Your task to perform on an android device: uninstall "Airtel Thanks" Image 0: 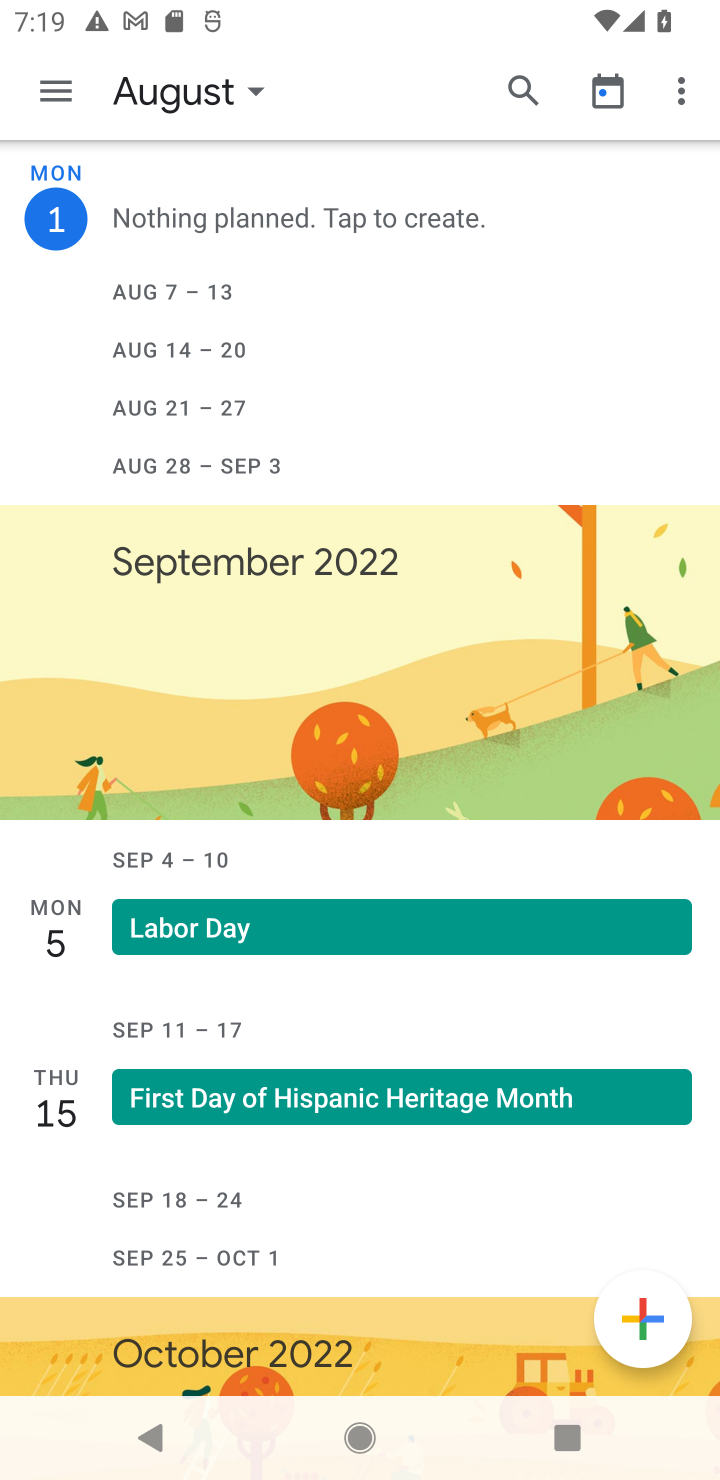
Step 0: press home button
Your task to perform on an android device: uninstall "Airtel Thanks" Image 1: 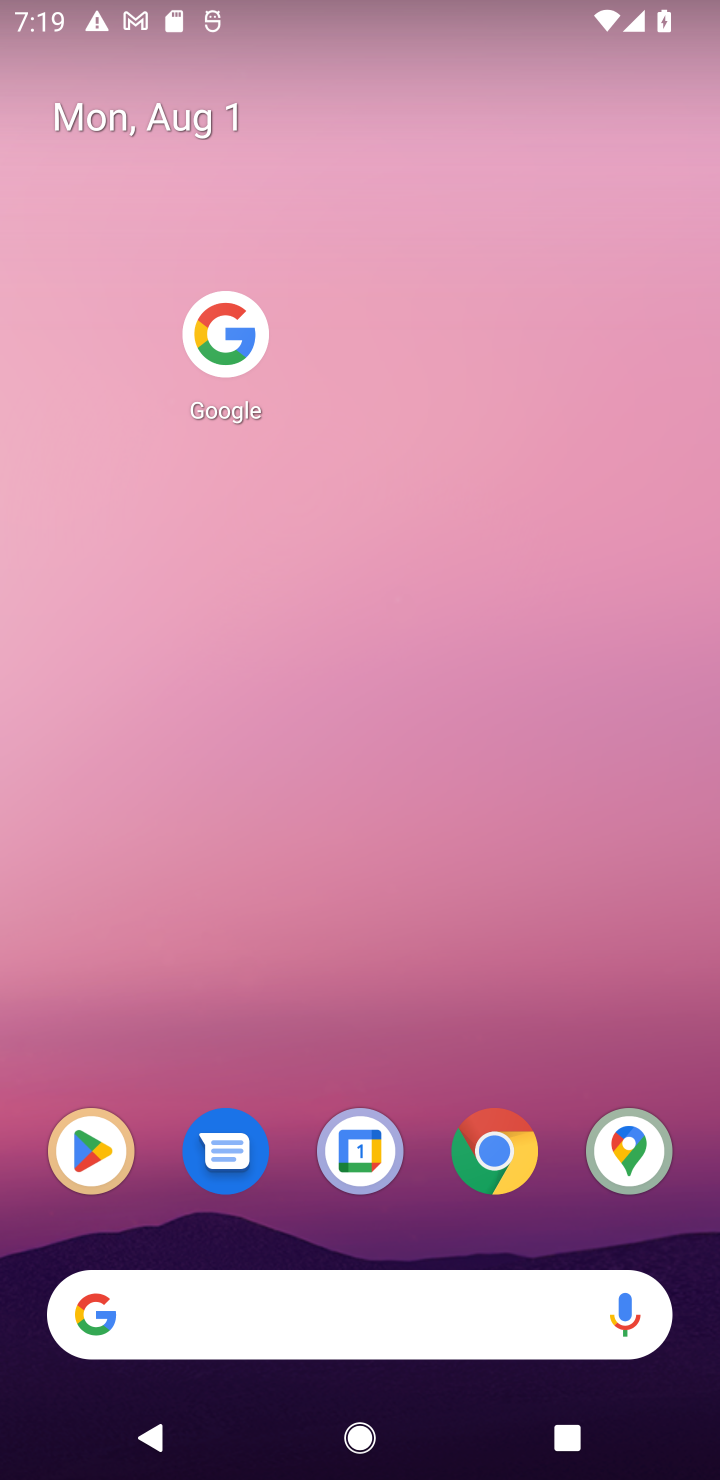
Step 1: drag from (357, 1293) to (468, 5)
Your task to perform on an android device: uninstall "Airtel Thanks" Image 2: 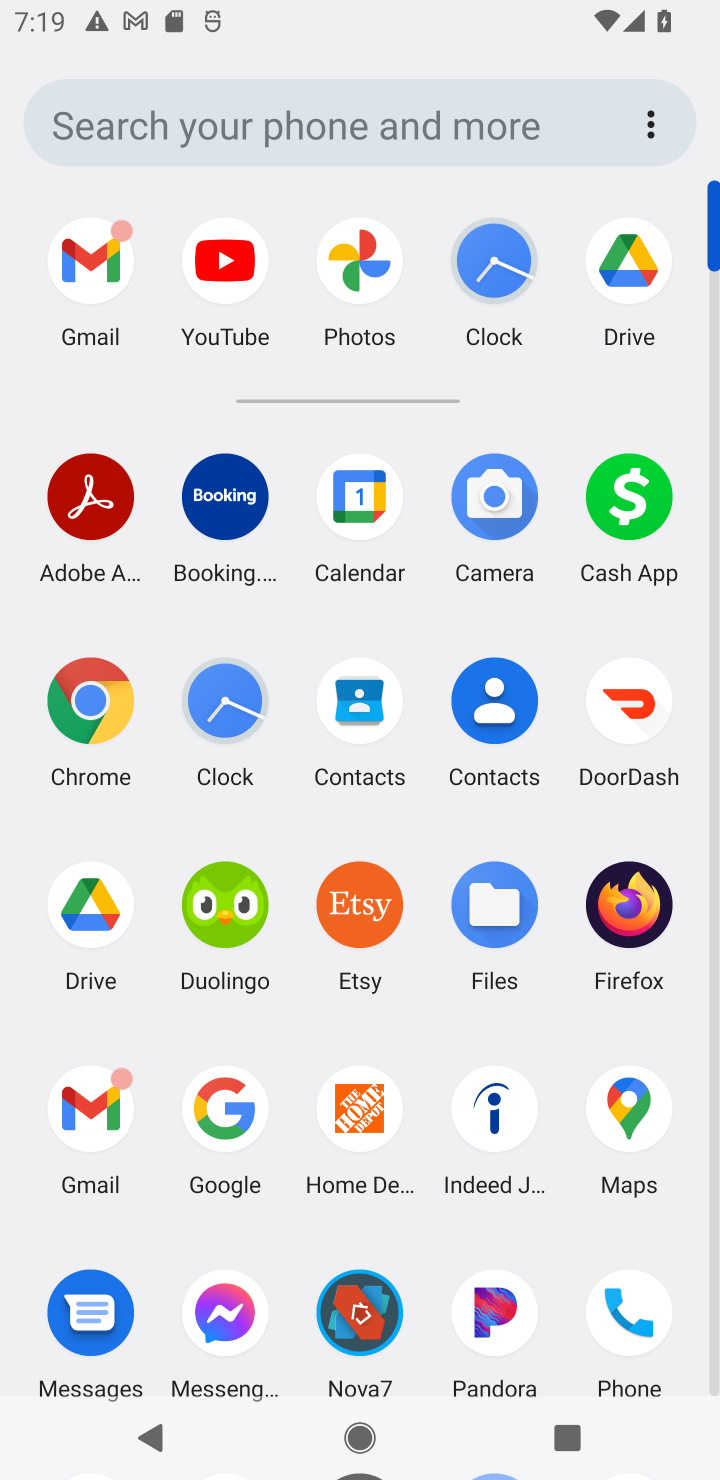
Step 2: drag from (288, 1005) to (301, 565)
Your task to perform on an android device: uninstall "Airtel Thanks" Image 3: 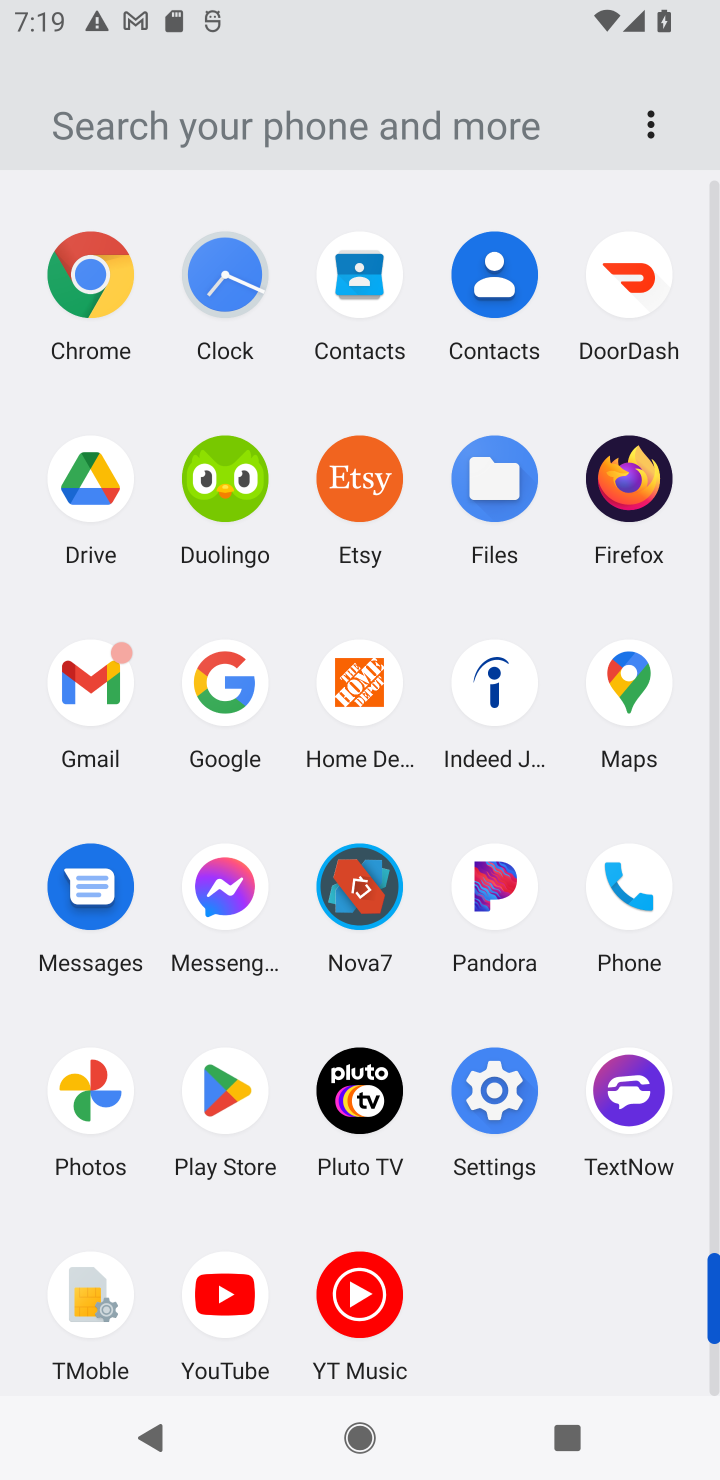
Step 3: click (252, 1099)
Your task to perform on an android device: uninstall "Airtel Thanks" Image 4: 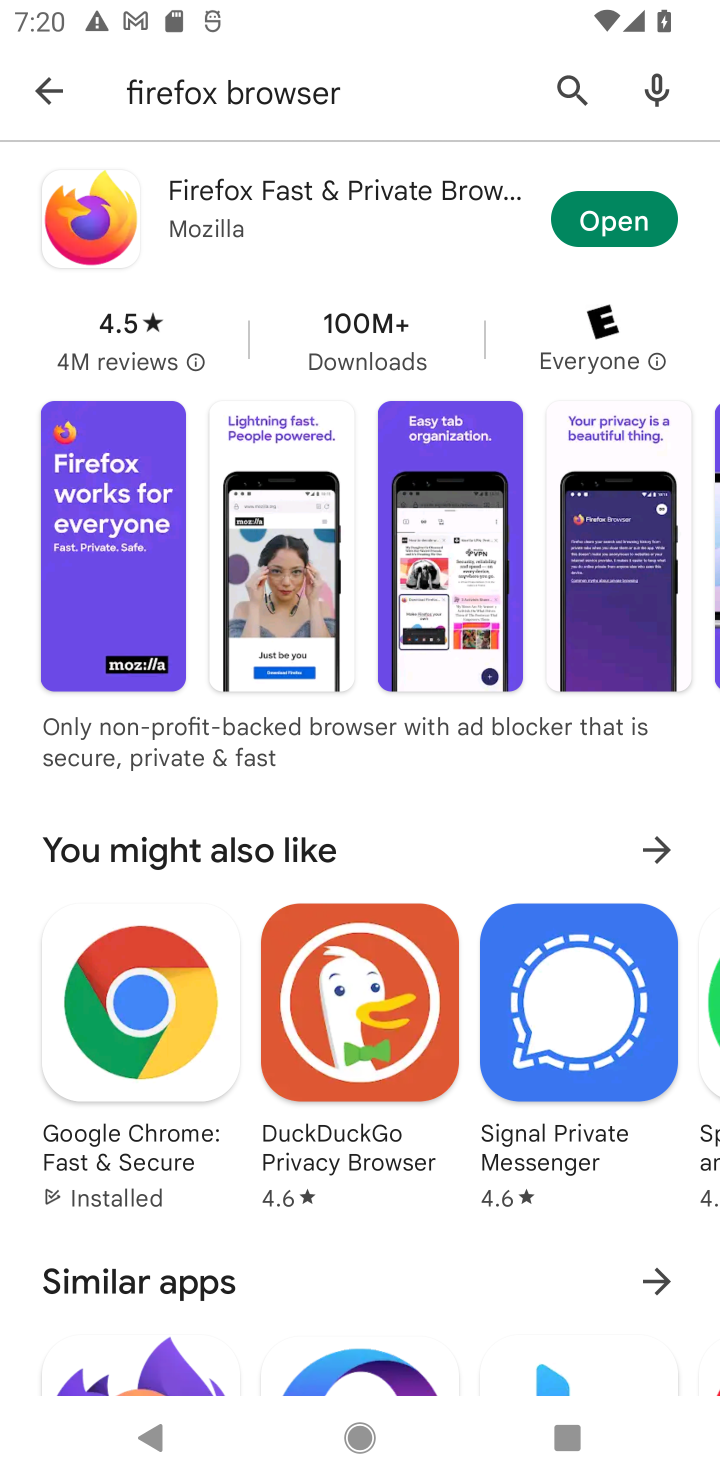
Step 4: click (563, 91)
Your task to perform on an android device: uninstall "Airtel Thanks" Image 5: 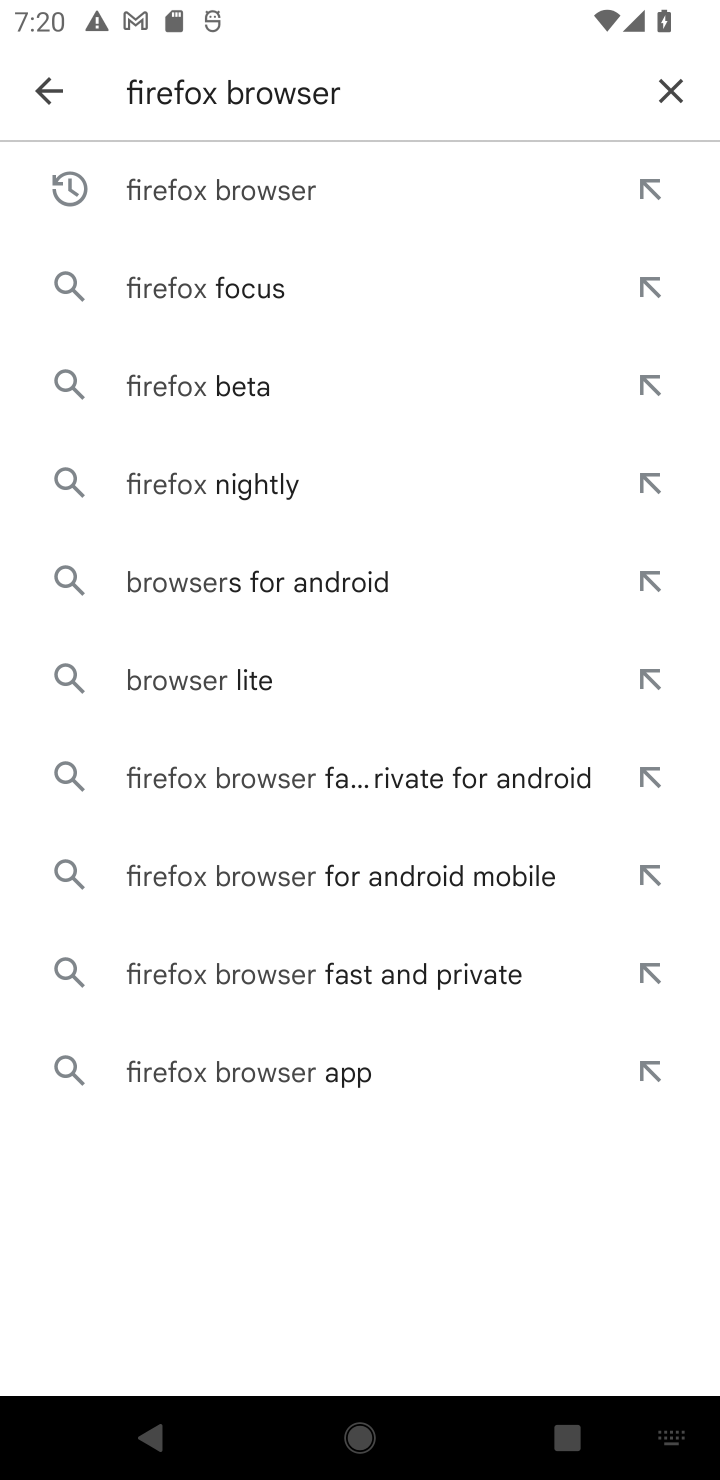
Step 5: click (691, 91)
Your task to perform on an android device: uninstall "Airtel Thanks" Image 6: 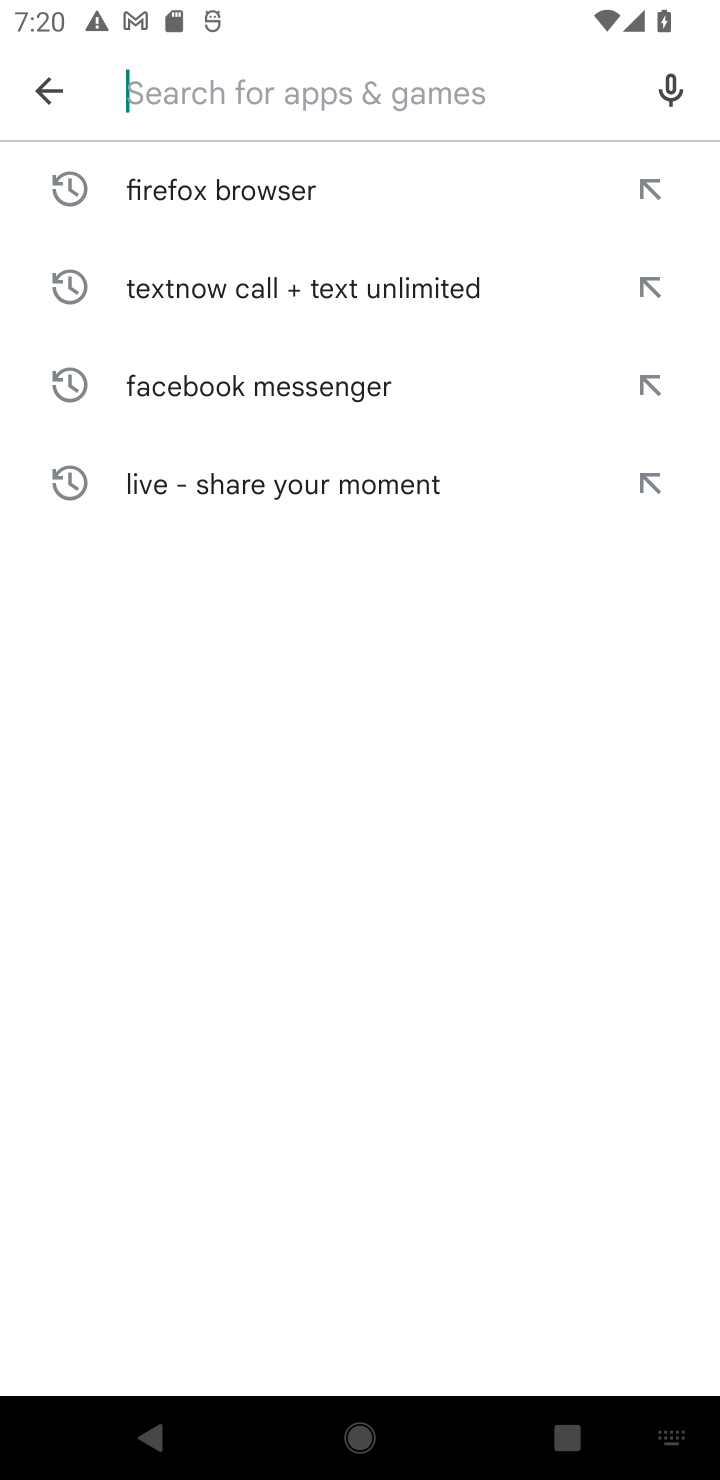
Step 6: type "airtel thanks"
Your task to perform on an android device: uninstall "Airtel Thanks" Image 7: 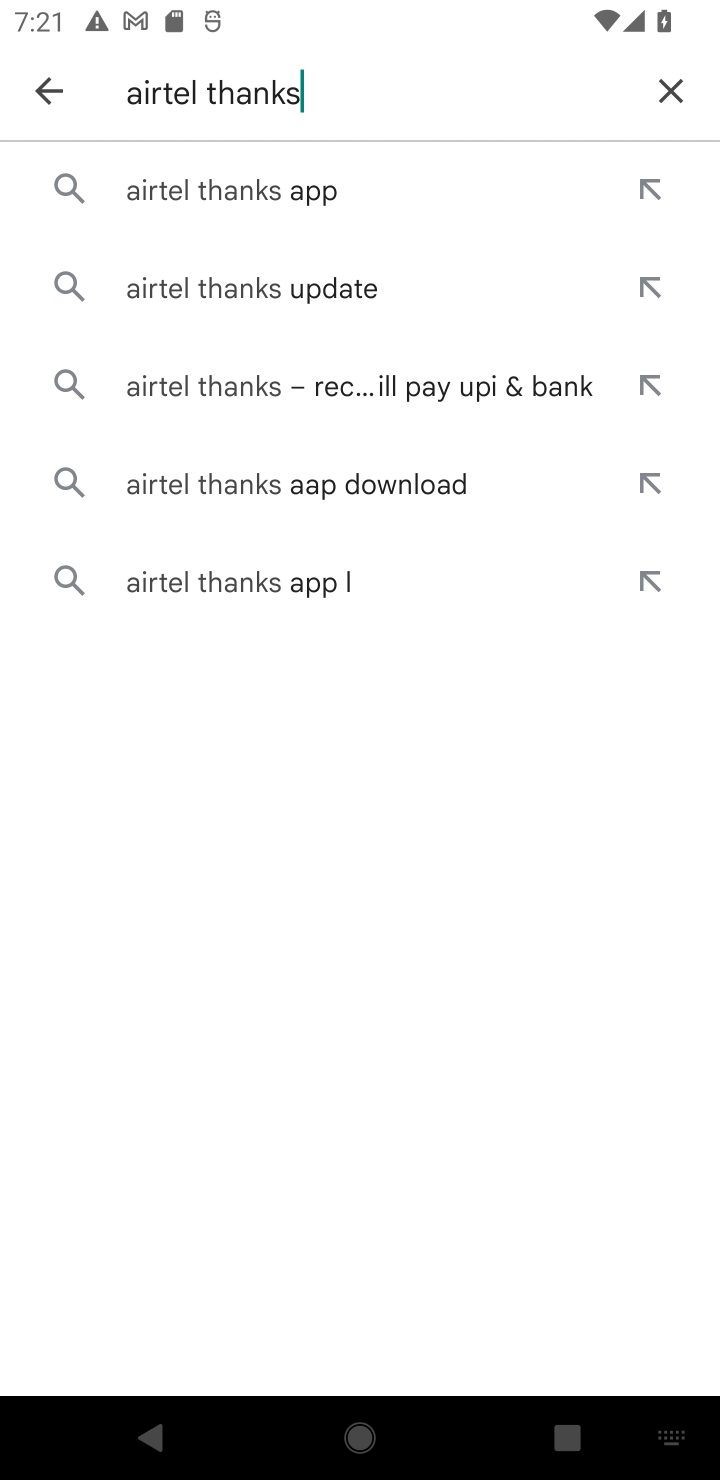
Step 7: click (277, 188)
Your task to perform on an android device: uninstall "Airtel Thanks" Image 8: 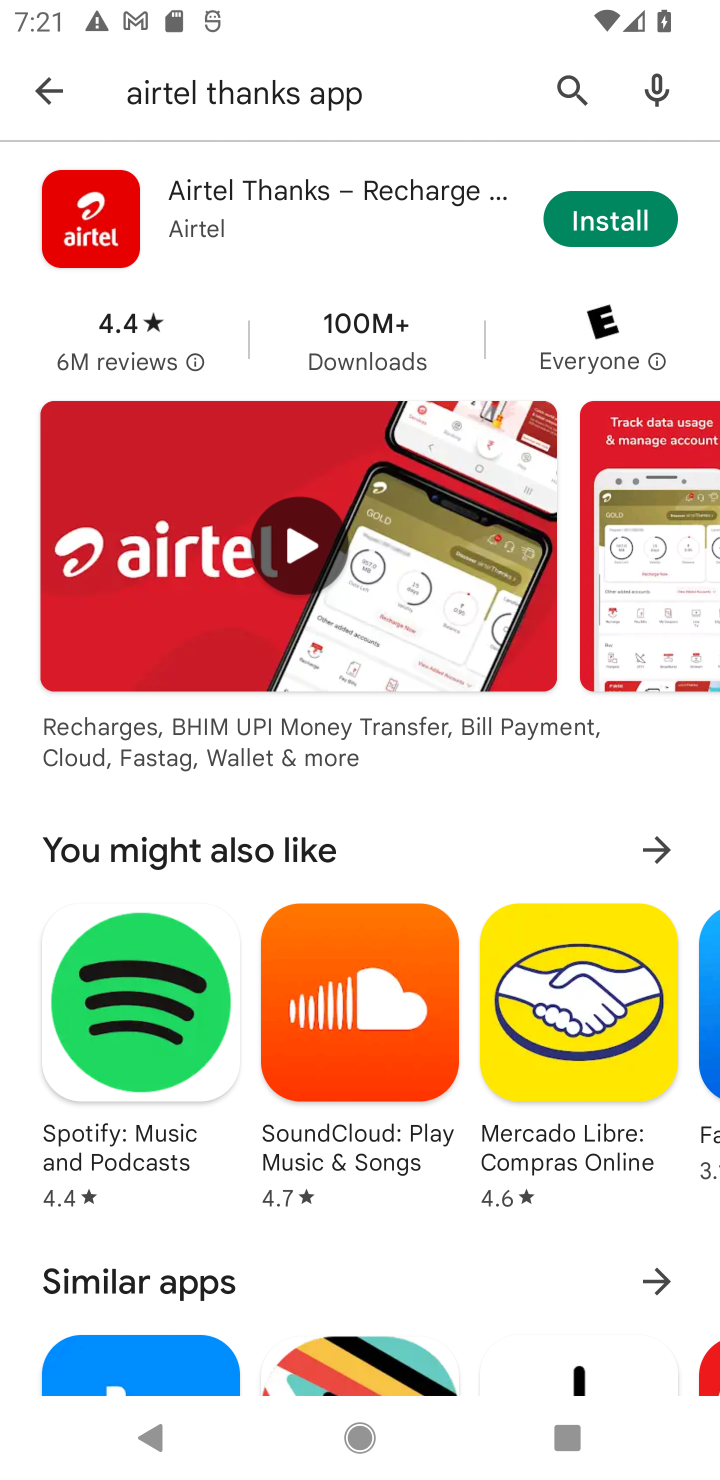
Step 8: task complete